Your task to perform on an android device: Go to accessibility settings Image 0: 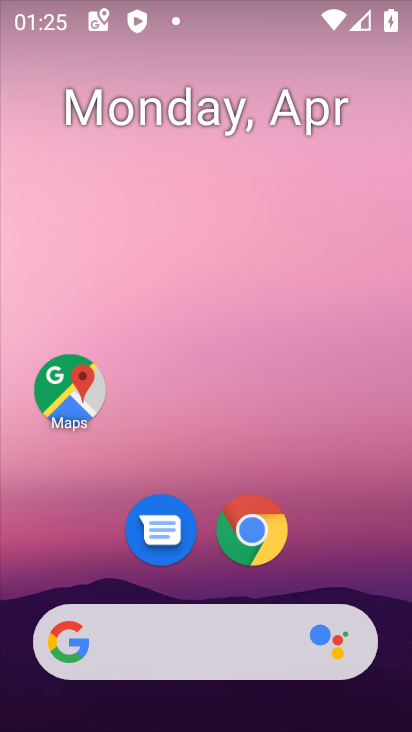
Step 0: drag from (316, 543) to (235, 8)
Your task to perform on an android device: Go to accessibility settings Image 1: 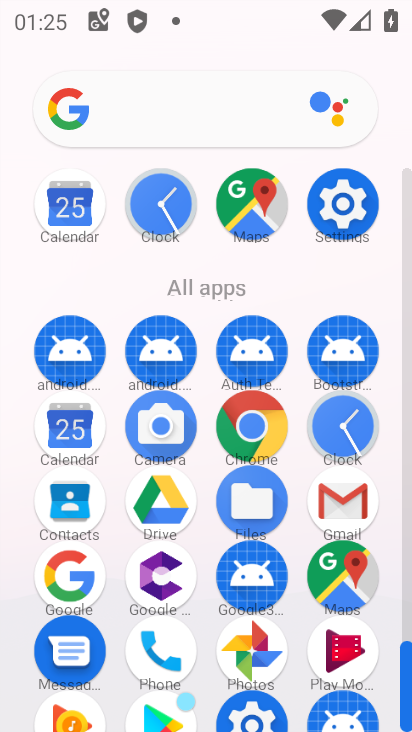
Step 1: click (346, 202)
Your task to perform on an android device: Go to accessibility settings Image 2: 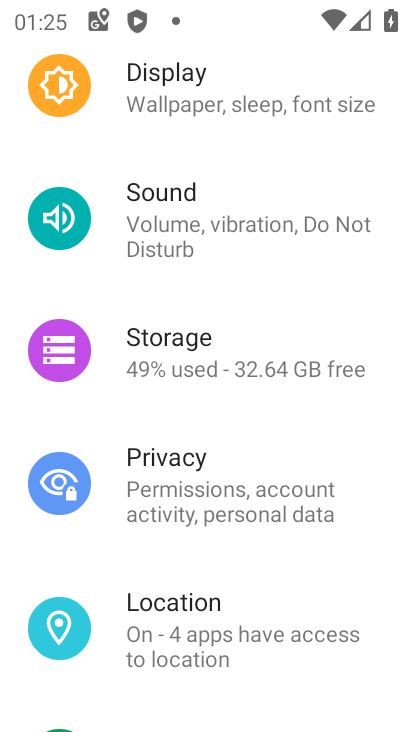
Step 2: drag from (219, 607) to (172, 120)
Your task to perform on an android device: Go to accessibility settings Image 3: 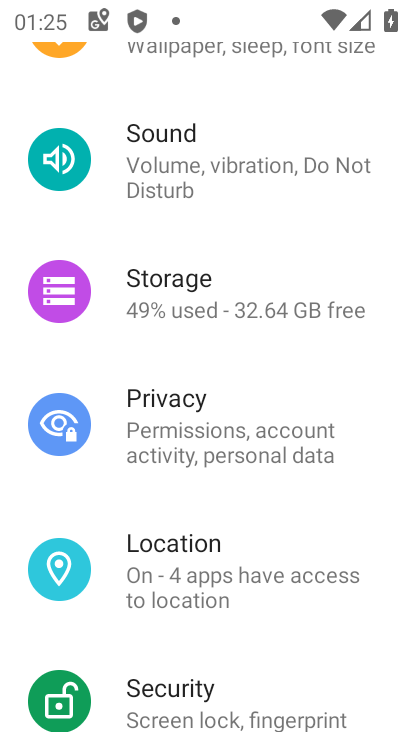
Step 3: drag from (267, 629) to (185, 140)
Your task to perform on an android device: Go to accessibility settings Image 4: 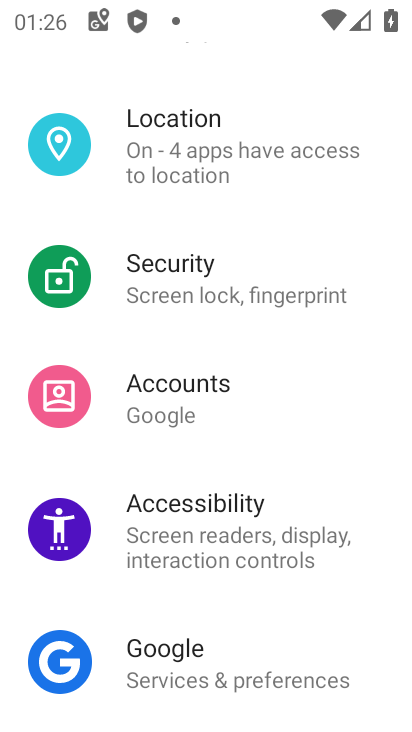
Step 4: click (187, 516)
Your task to perform on an android device: Go to accessibility settings Image 5: 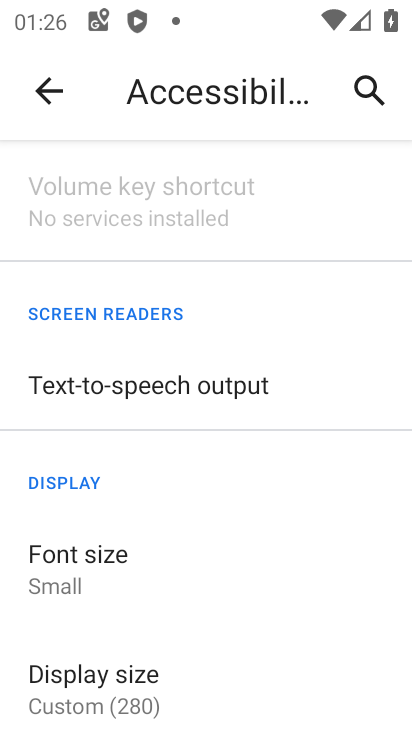
Step 5: task complete